Your task to perform on an android device: Open network settings Image 0: 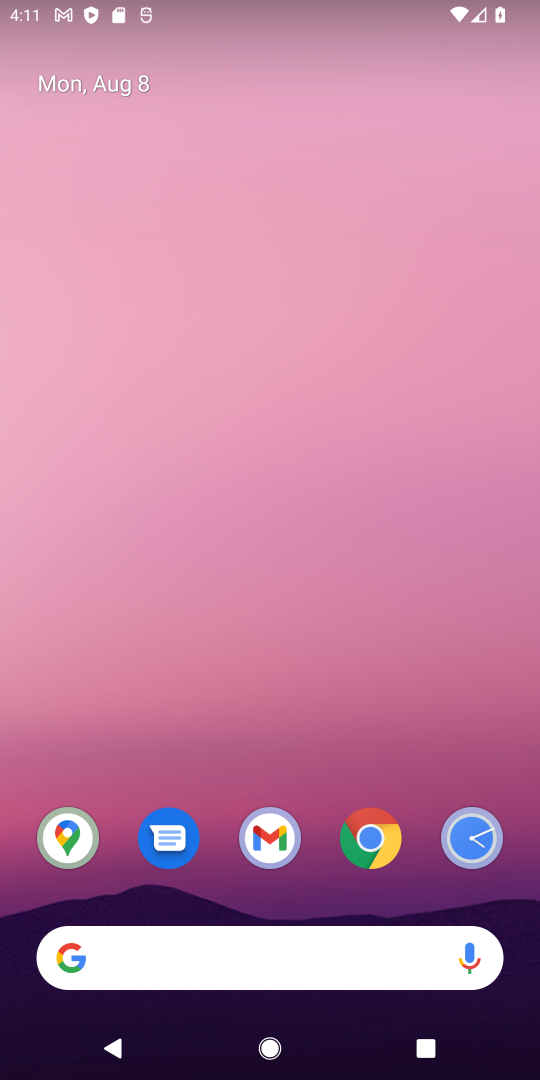
Step 0: drag from (243, 950) to (477, 339)
Your task to perform on an android device: Open network settings Image 1: 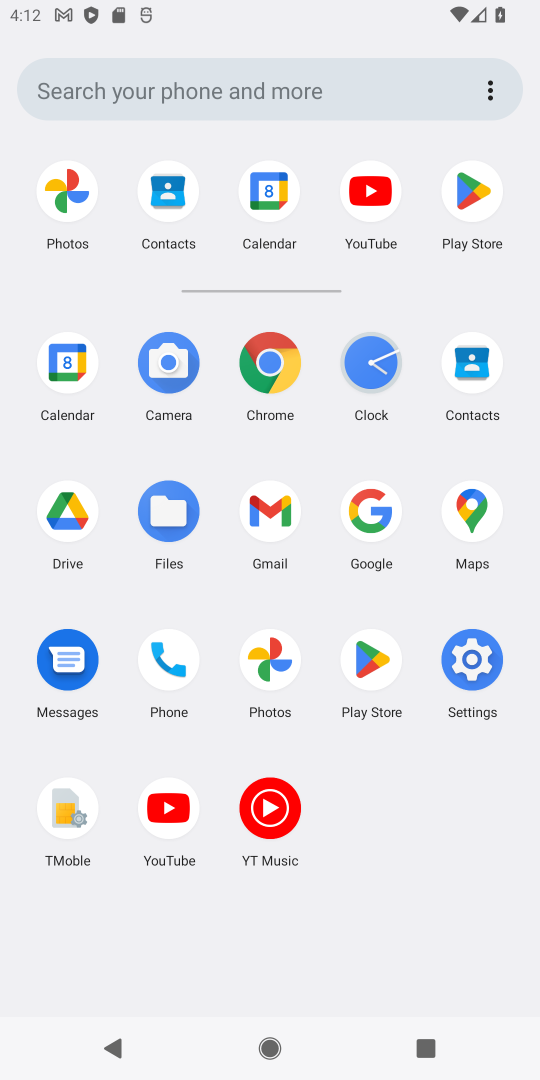
Step 1: click (470, 657)
Your task to perform on an android device: Open network settings Image 2: 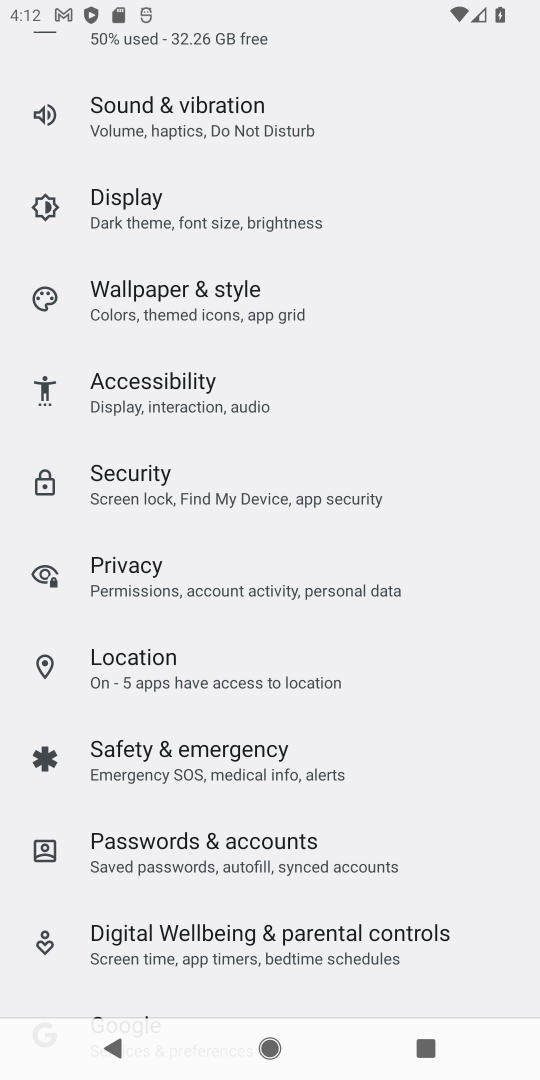
Step 2: drag from (394, 441) to (410, 708)
Your task to perform on an android device: Open network settings Image 3: 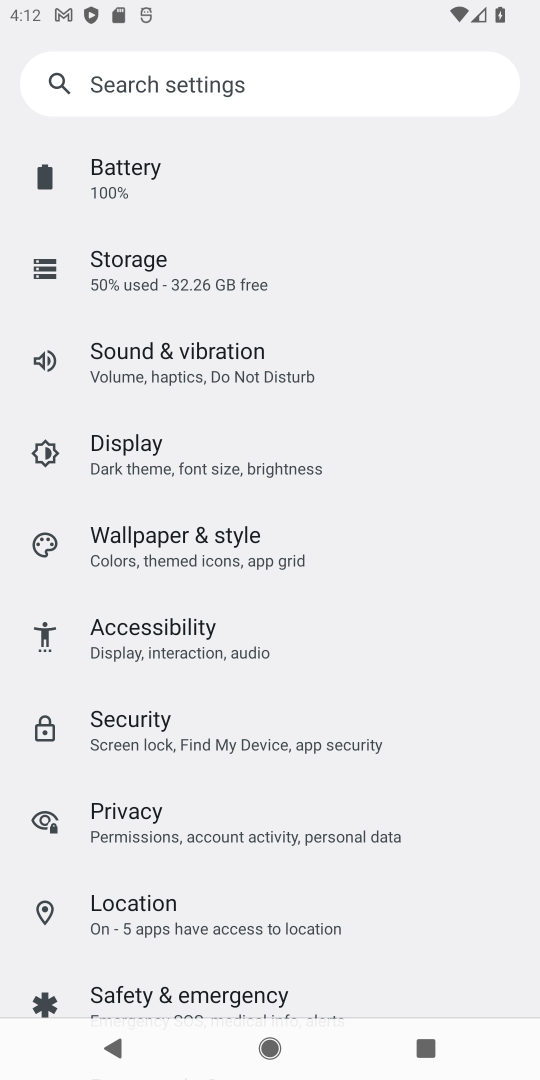
Step 3: drag from (372, 388) to (373, 593)
Your task to perform on an android device: Open network settings Image 4: 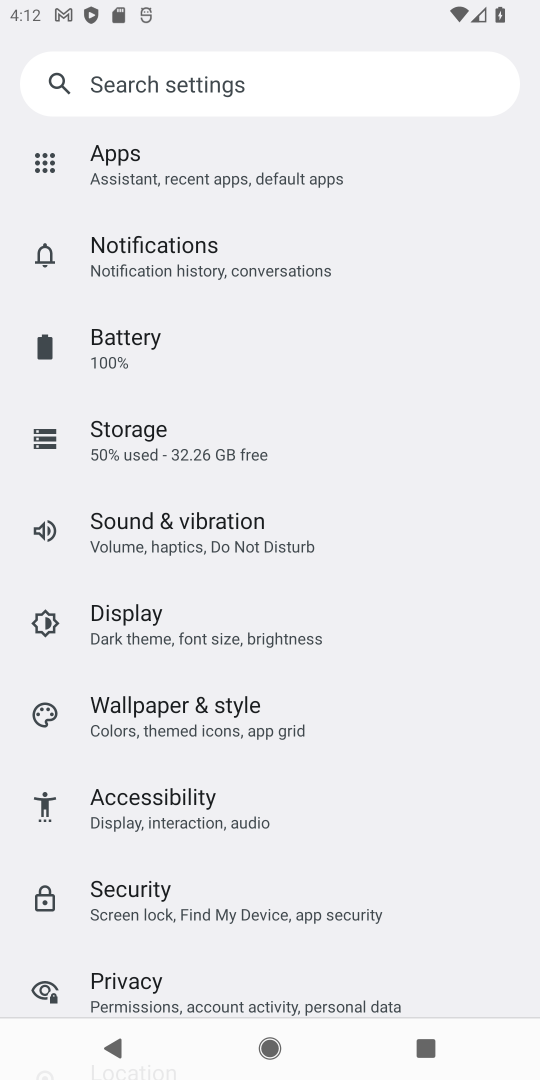
Step 4: drag from (350, 351) to (349, 569)
Your task to perform on an android device: Open network settings Image 5: 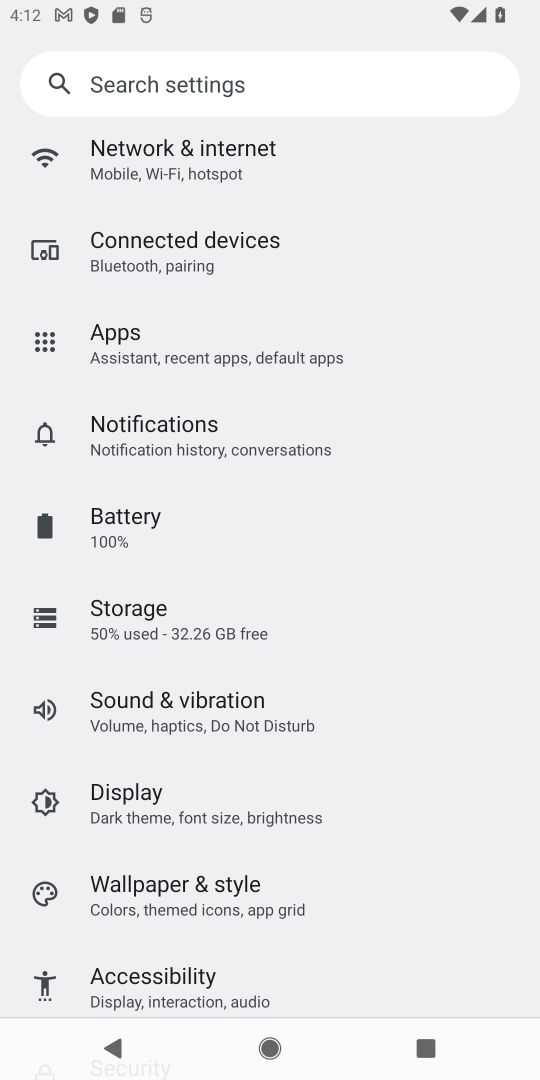
Step 5: drag from (288, 214) to (319, 378)
Your task to perform on an android device: Open network settings Image 6: 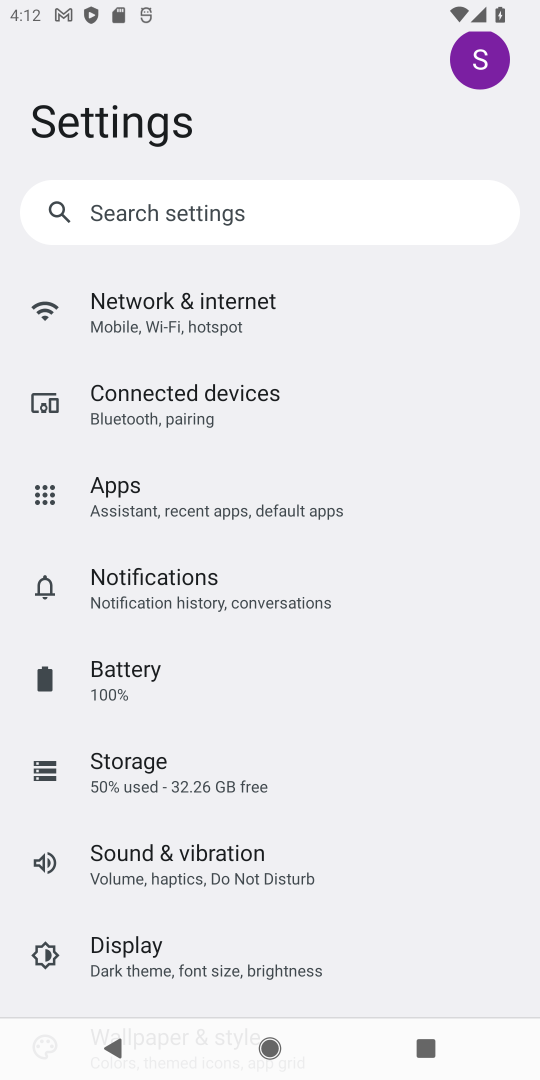
Step 6: click (198, 311)
Your task to perform on an android device: Open network settings Image 7: 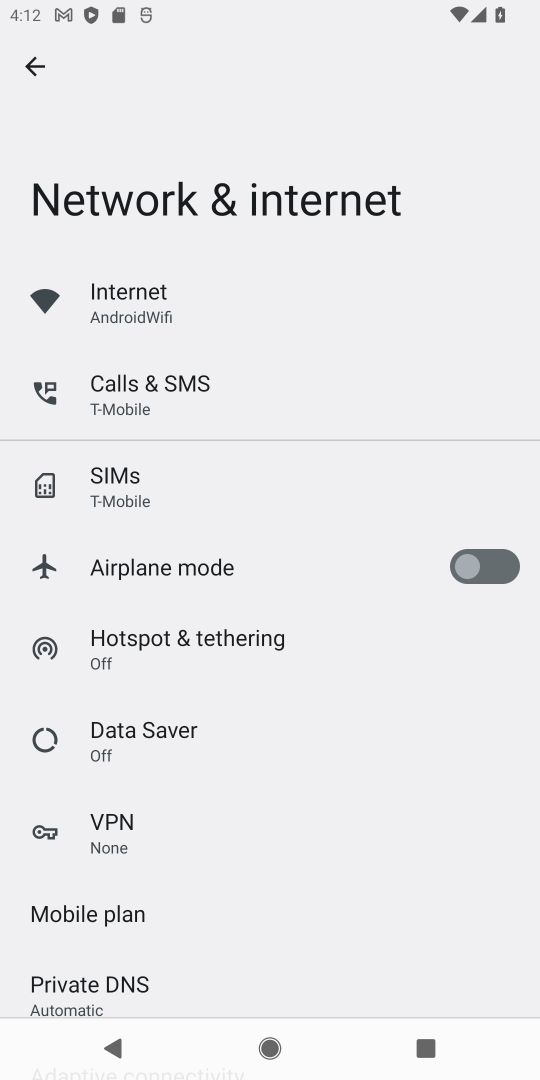
Step 7: task complete